Your task to perform on an android device: Search for seafood restaurants on Google Maps Image 0: 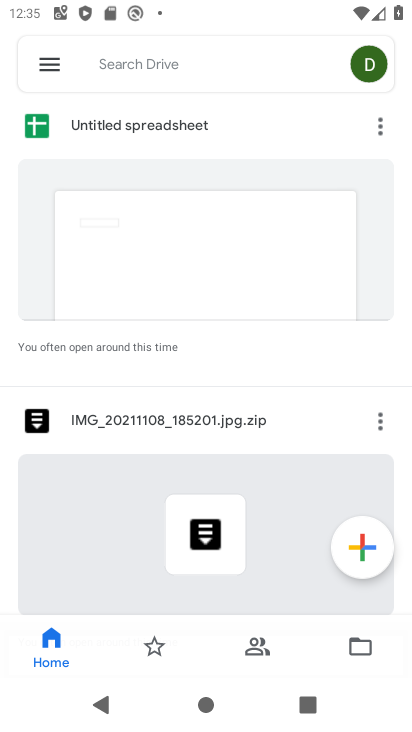
Step 0: press home button
Your task to perform on an android device: Search for seafood restaurants on Google Maps Image 1: 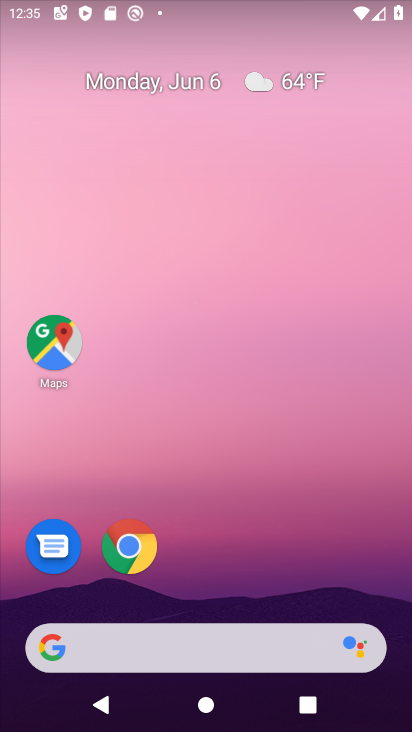
Step 1: click (43, 331)
Your task to perform on an android device: Search for seafood restaurants on Google Maps Image 2: 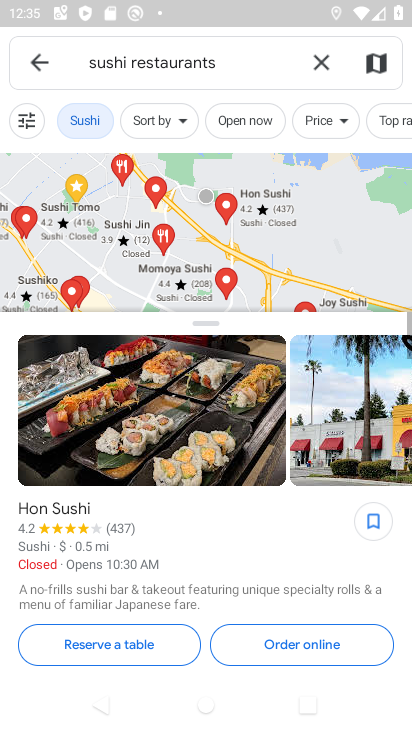
Step 2: click (312, 54)
Your task to perform on an android device: Search for seafood restaurants on Google Maps Image 3: 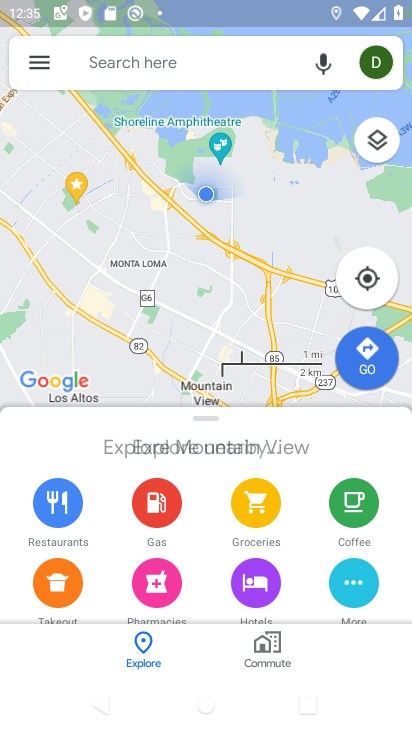
Step 3: click (214, 60)
Your task to perform on an android device: Search for seafood restaurants on Google Maps Image 4: 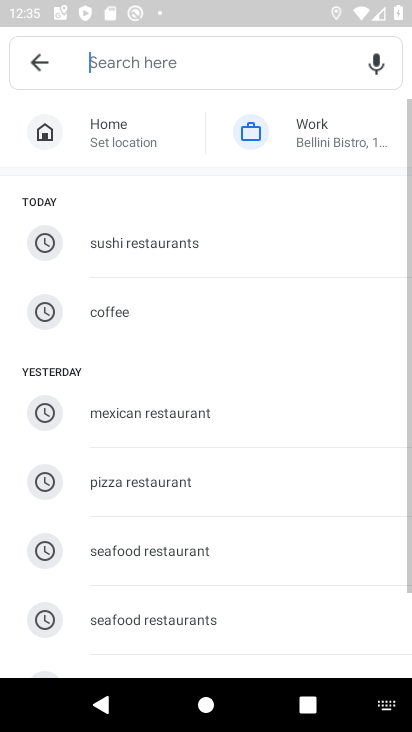
Step 4: click (206, 542)
Your task to perform on an android device: Search for seafood restaurants on Google Maps Image 5: 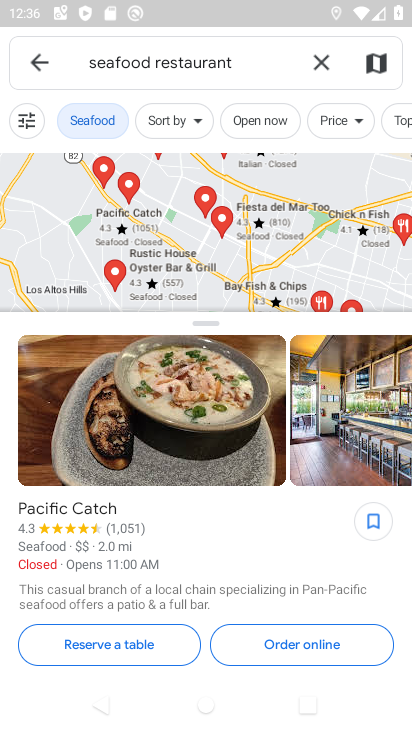
Step 5: task complete